Your task to perform on an android device: When is my next meeting? Image 0: 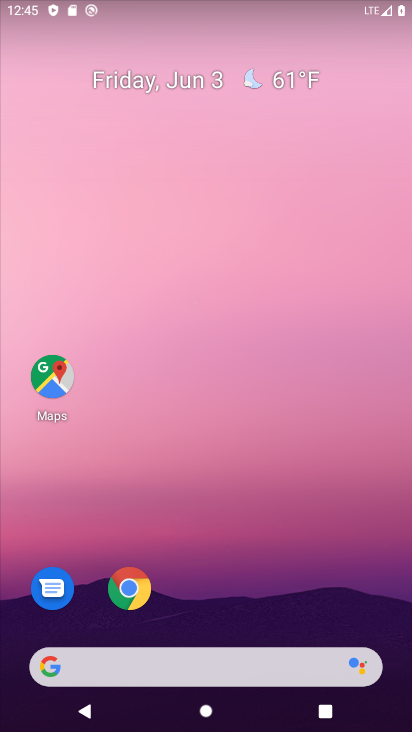
Step 0: click (394, 501)
Your task to perform on an android device: When is my next meeting? Image 1: 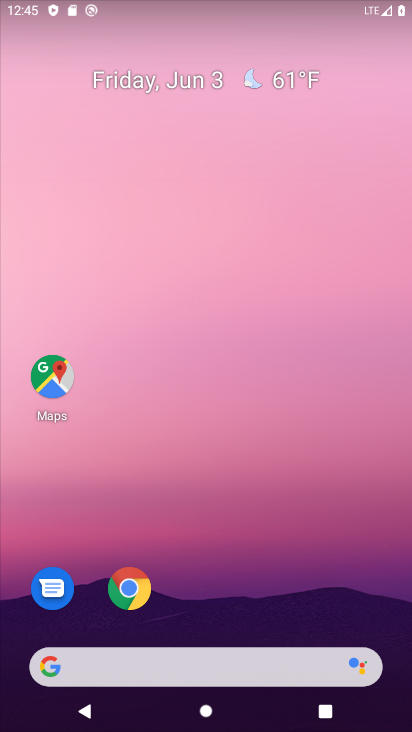
Step 1: press home button
Your task to perform on an android device: When is my next meeting? Image 2: 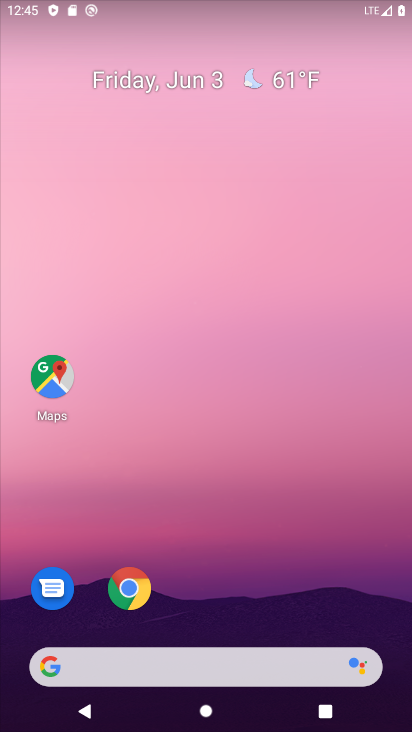
Step 2: drag from (261, 289) to (284, 245)
Your task to perform on an android device: When is my next meeting? Image 3: 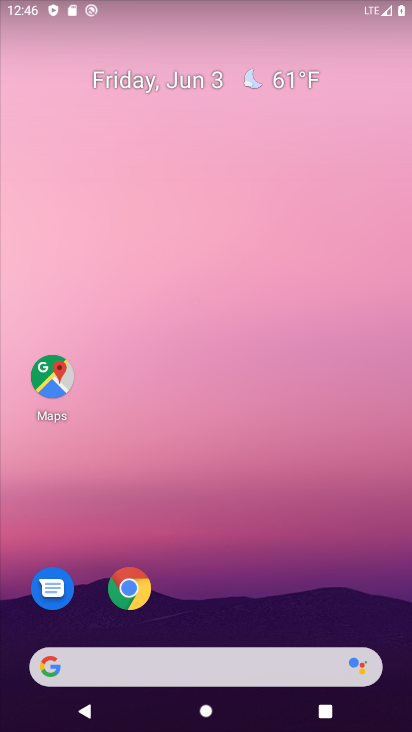
Step 3: drag from (43, 567) to (225, 164)
Your task to perform on an android device: When is my next meeting? Image 4: 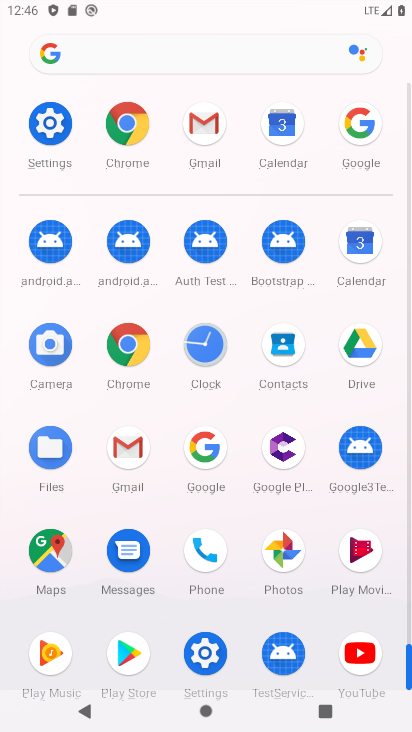
Step 4: click (294, 129)
Your task to perform on an android device: When is my next meeting? Image 5: 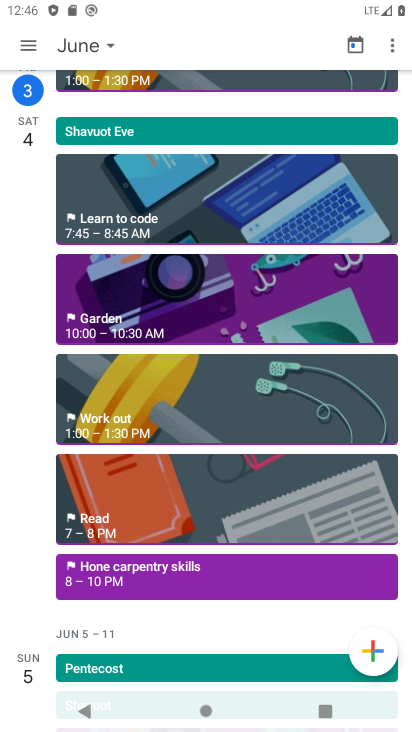
Step 5: click (76, 50)
Your task to perform on an android device: When is my next meeting? Image 6: 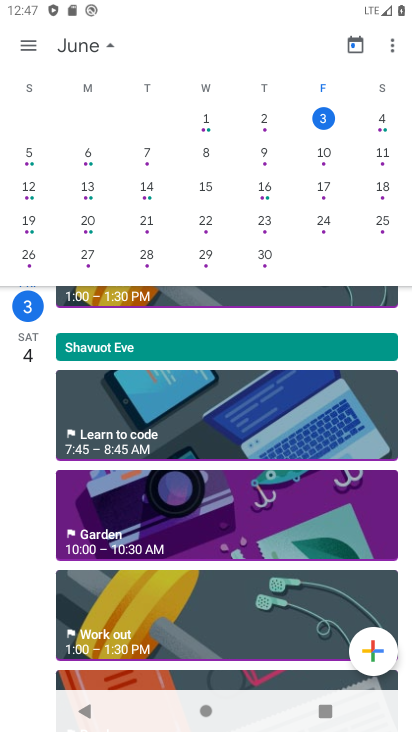
Step 6: task complete